Your task to perform on an android device: turn on location history Image 0: 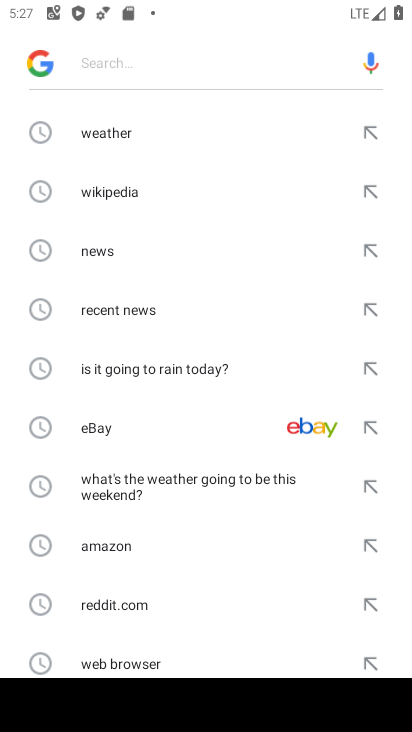
Step 0: press back button
Your task to perform on an android device: turn on location history Image 1: 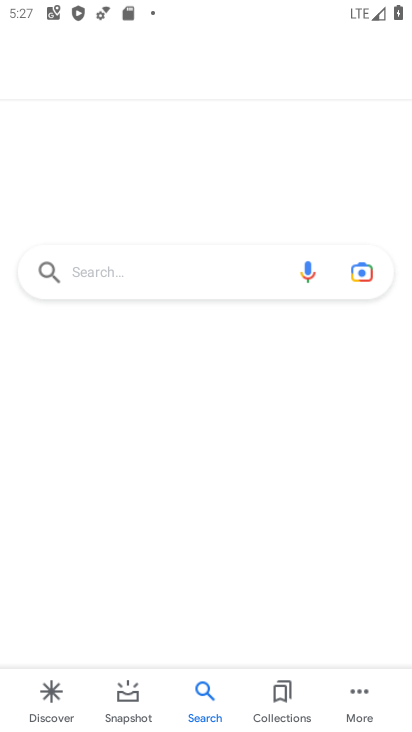
Step 1: press back button
Your task to perform on an android device: turn on location history Image 2: 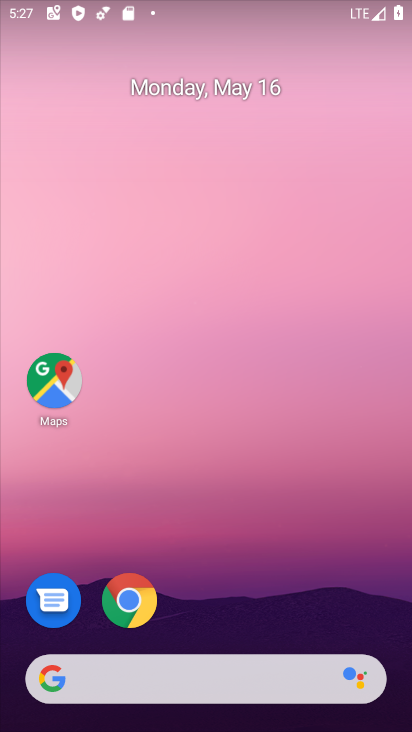
Step 2: drag from (203, 656) to (192, 72)
Your task to perform on an android device: turn on location history Image 3: 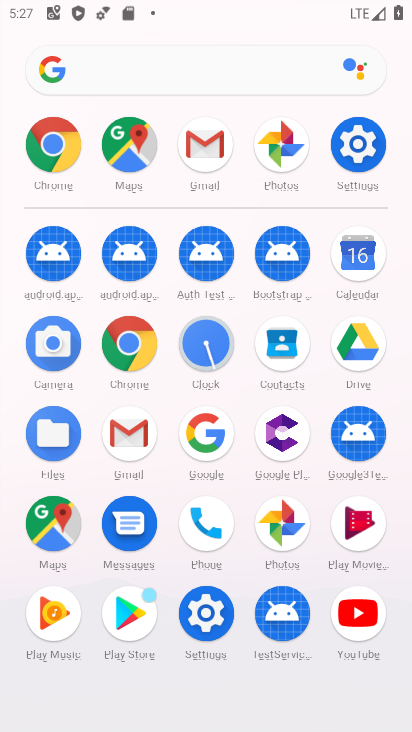
Step 3: click (371, 130)
Your task to perform on an android device: turn on location history Image 4: 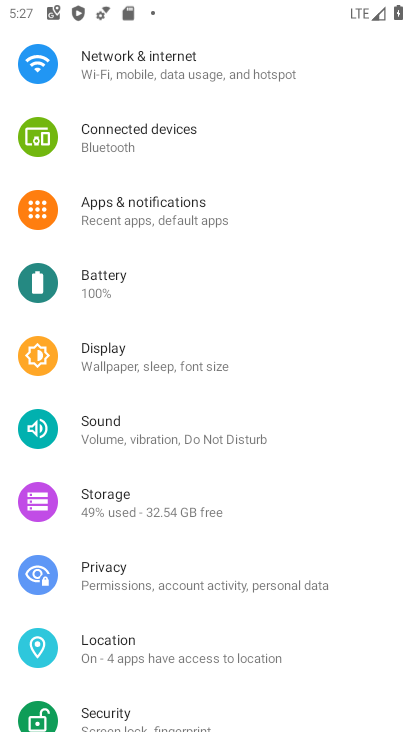
Step 4: click (156, 642)
Your task to perform on an android device: turn on location history Image 5: 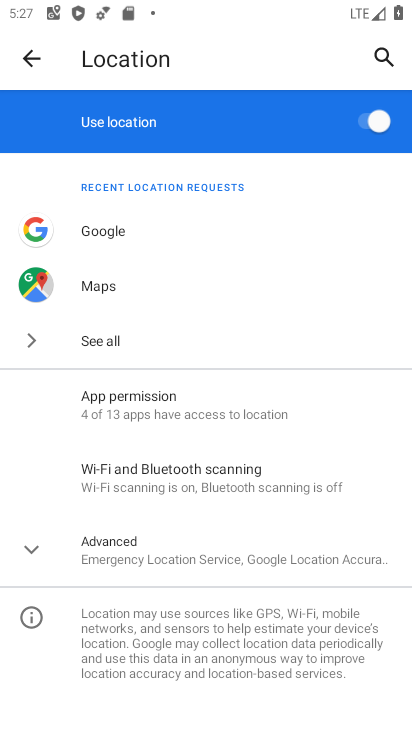
Step 5: click (148, 556)
Your task to perform on an android device: turn on location history Image 6: 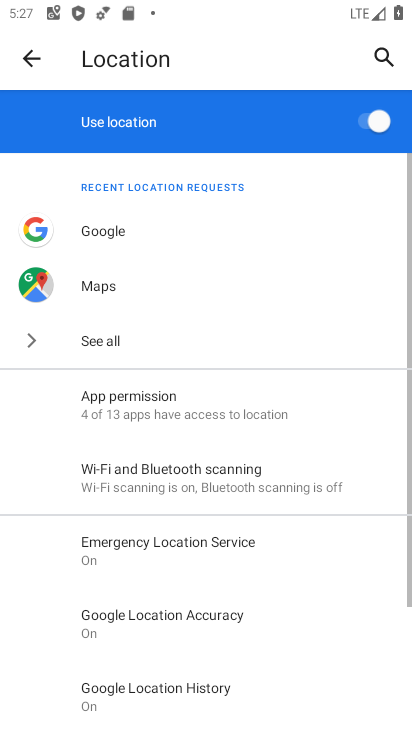
Step 6: drag from (151, 555) to (138, 355)
Your task to perform on an android device: turn on location history Image 7: 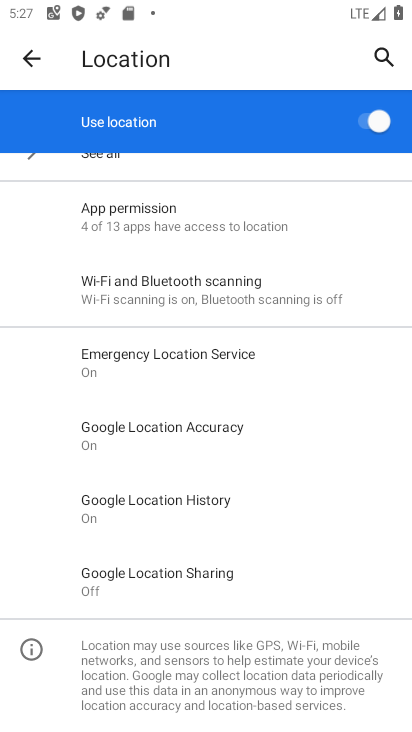
Step 7: click (161, 496)
Your task to perform on an android device: turn on location history Image 8: 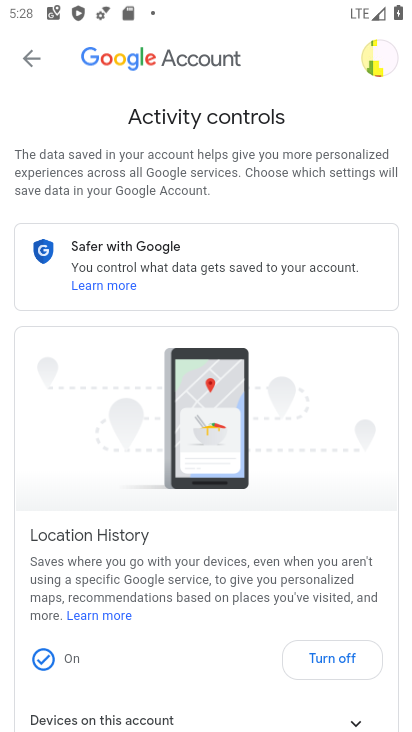
Step 8: task complete